Your task to perform on an android device: set an alarm Image 0: 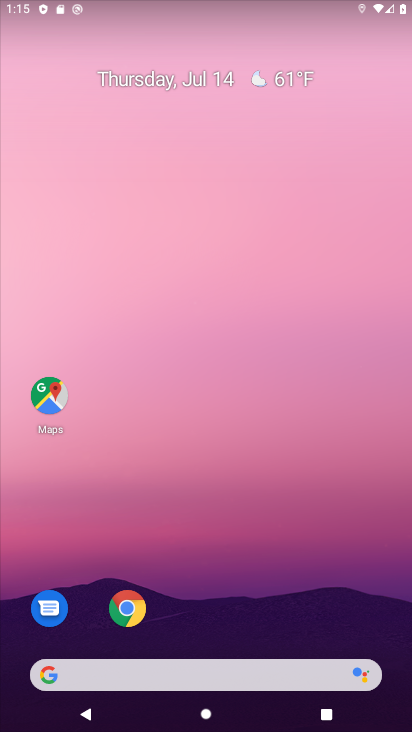
Step 0: drag from (215, 659) to (207, 382)
Your task to perform on an android device: set an alarm Image 1: 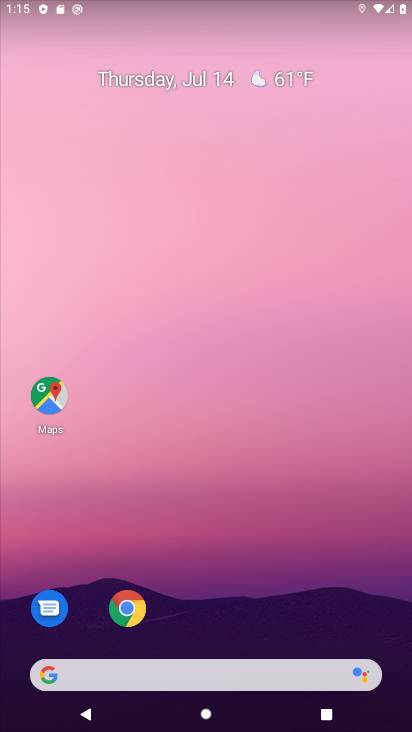
Step 1: drag from (208, 657) to (245, 4)
Your task to perform on an android device: set an alarm Image 2: 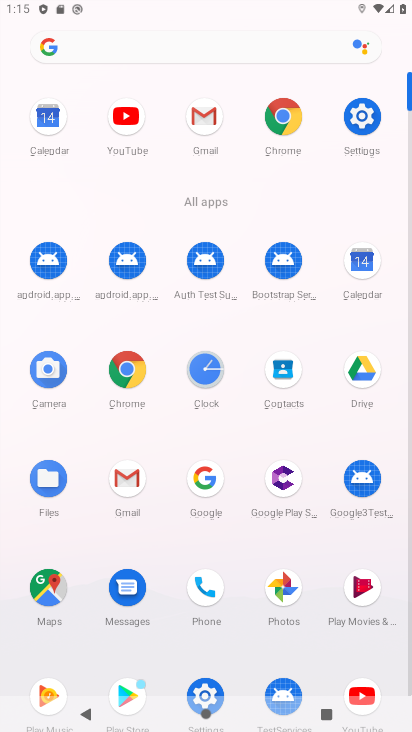
Step 2: click (211, 369)
Your task to perform on an android device: set an alarm Image 3: 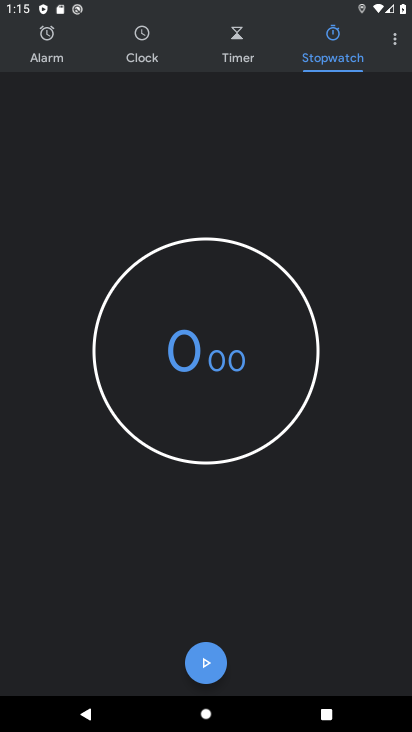
Step 3: click (66, 46)
Your task to perform on an android device: set an alarm Image 4: 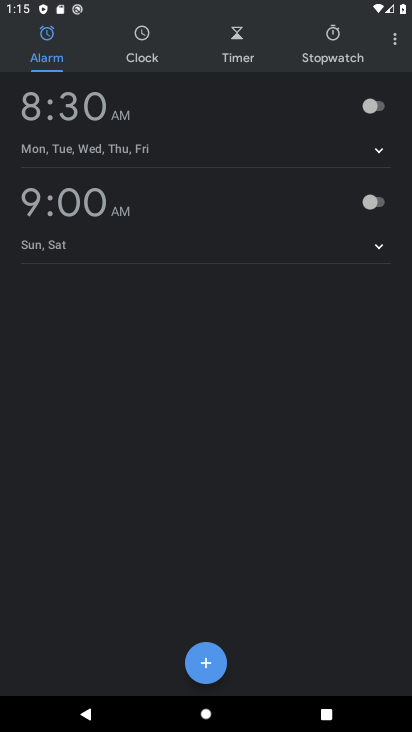
Step 4: click (218, 670)
Your task to perform on an android device: set an alarm Image 5: 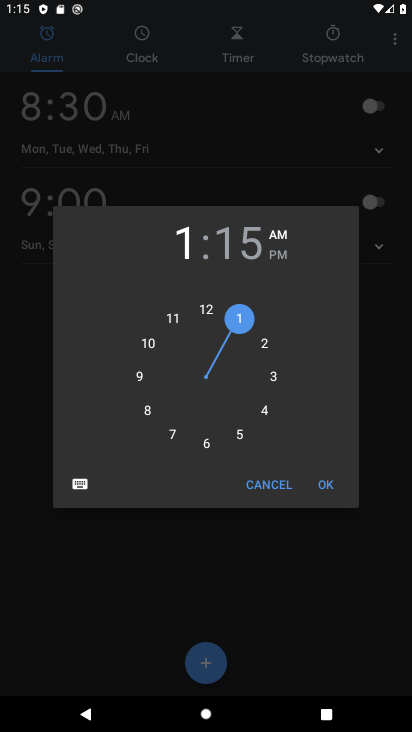
Step 5: click (201, 445)
Your task to perform on an android device: set an alarm Image 6: 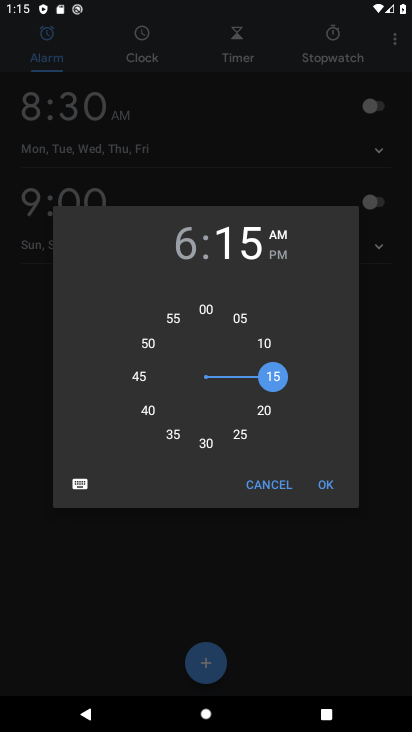
Step 6: click (215, 312)
Your task to perform on an android device: set an alarm Image 7: 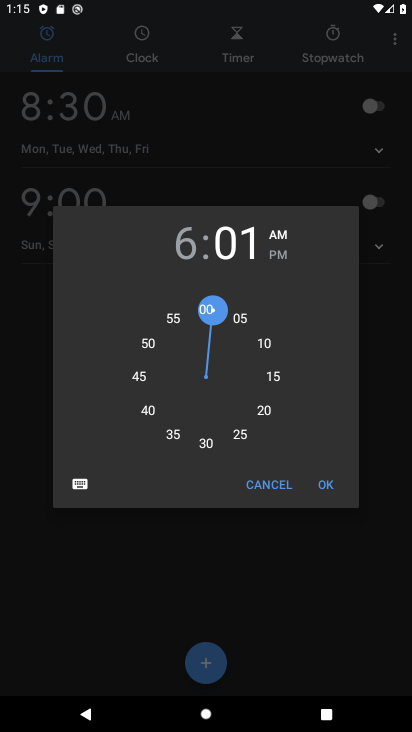
Step 7: click (215, 312)
Your task to perform on an android device: set an alarm Image 8: 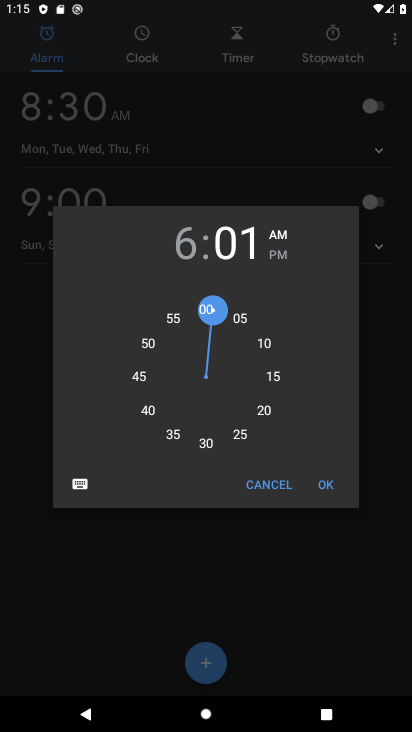
Step 8: click (207, 306)
Your task to perform on an android device: set an alarm Image 9: 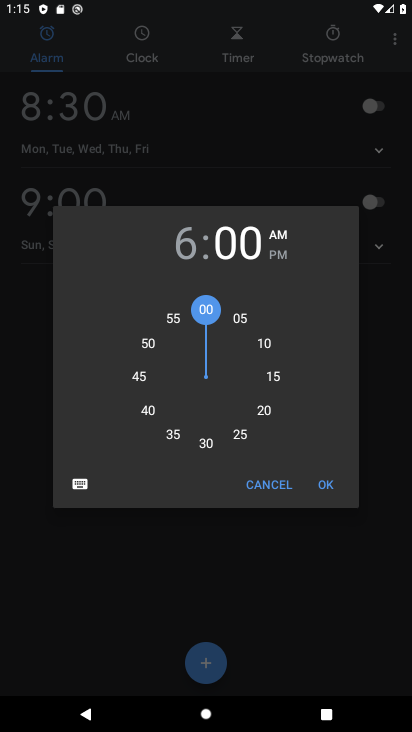
Step 9: click (320, 486)
Your task to perform on an android device: set an alarm Image 10: 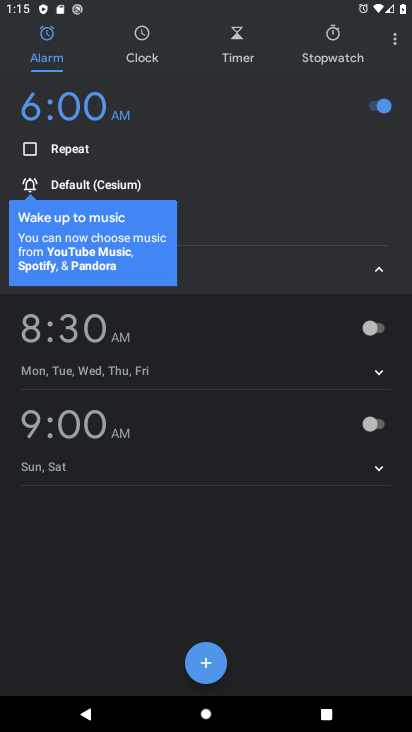
Step 10: task complete